Your task to perform on an android device: Clear the cart on newegg.com. Add "logitech g pro" to the cart on newegg.com Image 0: 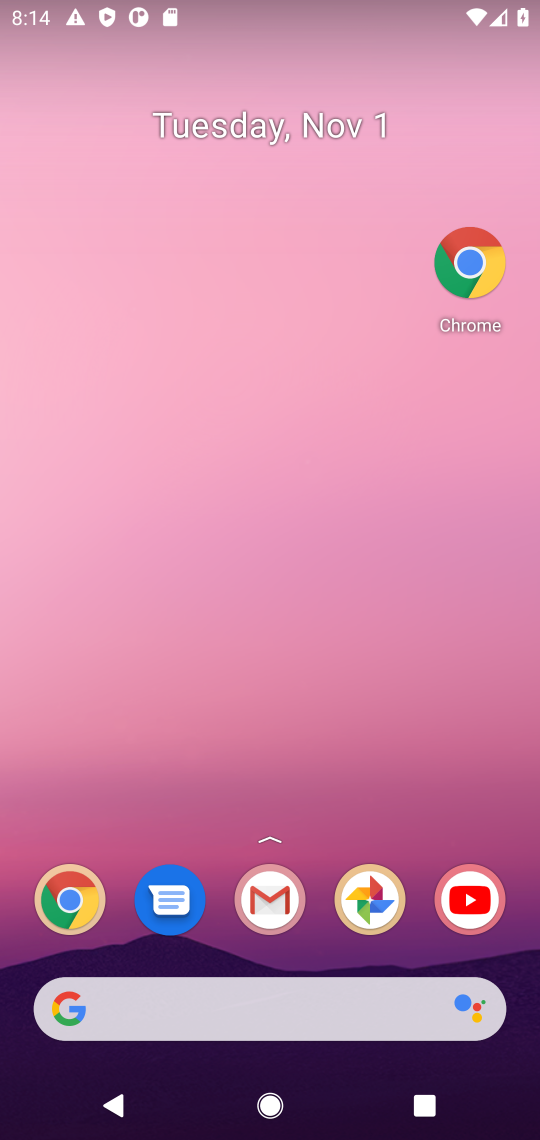
Step 0: drag from (253, 710) to (203, 117)
Your task to perform on an android device: Clear the cart on newegg.com. Add "logitech g pro" to the cart on newegg.com Image 1: 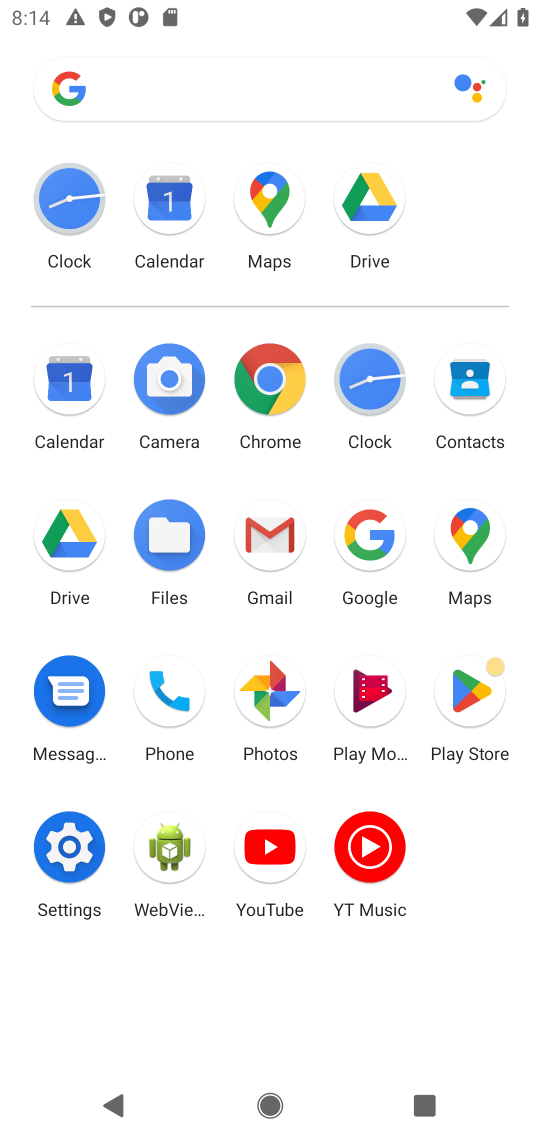
Step 1: click (262, 379)
Your task to perform on an android device: Clear the cart on newegg.com. Add "logitech g pro" to the cart on newegg.com Image 2: 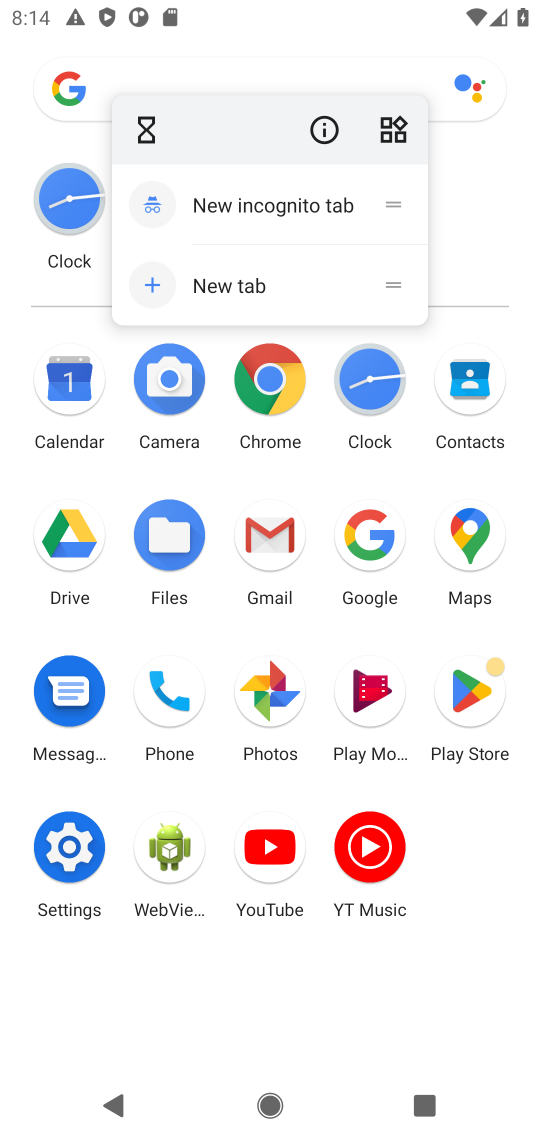
Step 2: click (251, 374)
Your task to perform on an android device: Clear the cart on newegg.com. Add "logitech g pro" to the cart on newegg.com Image 3: 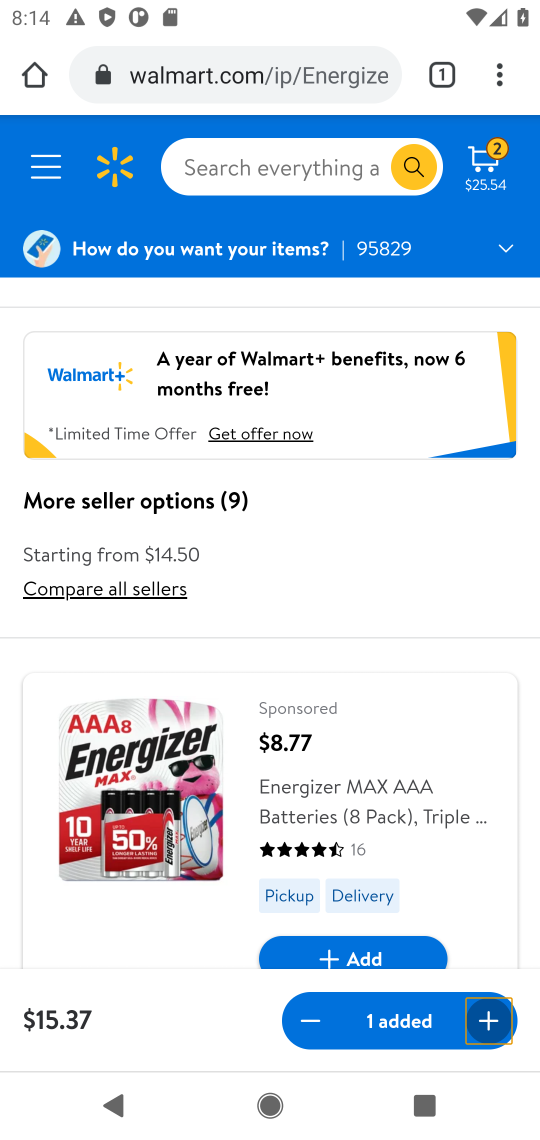
Step 3: click (216, 62)
Your task to perform on an android device: Clear the cart on newegg.com. Add "logitech g pro" to the cart on newegg.com Image 4: 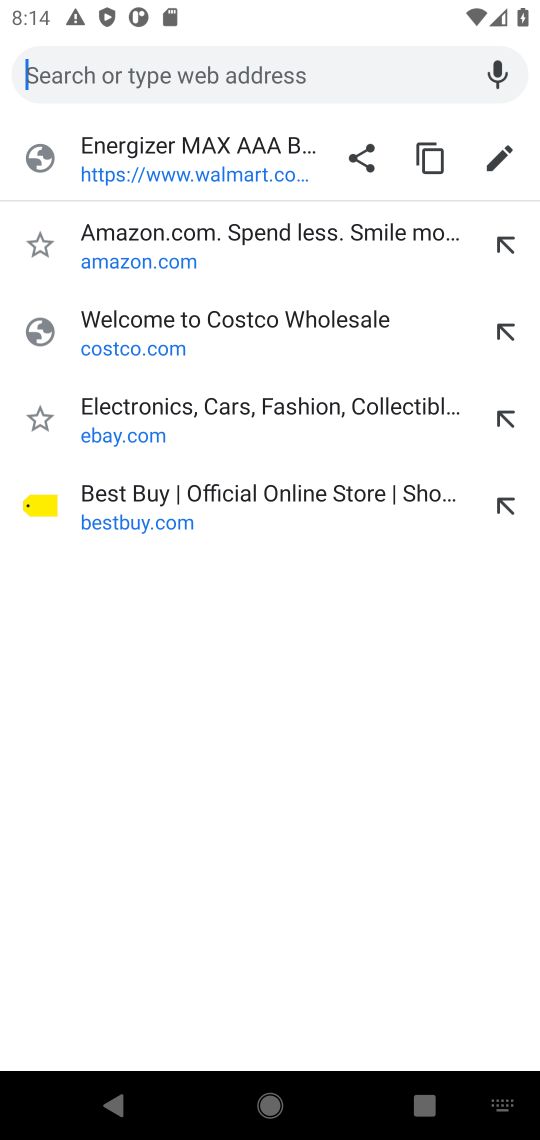
Step 4: type "newegg.com"
Your task to perform on an android device: Clear the cart on newegg.com. Add "logitech g pro" to the cart on newegg.com Image 5: 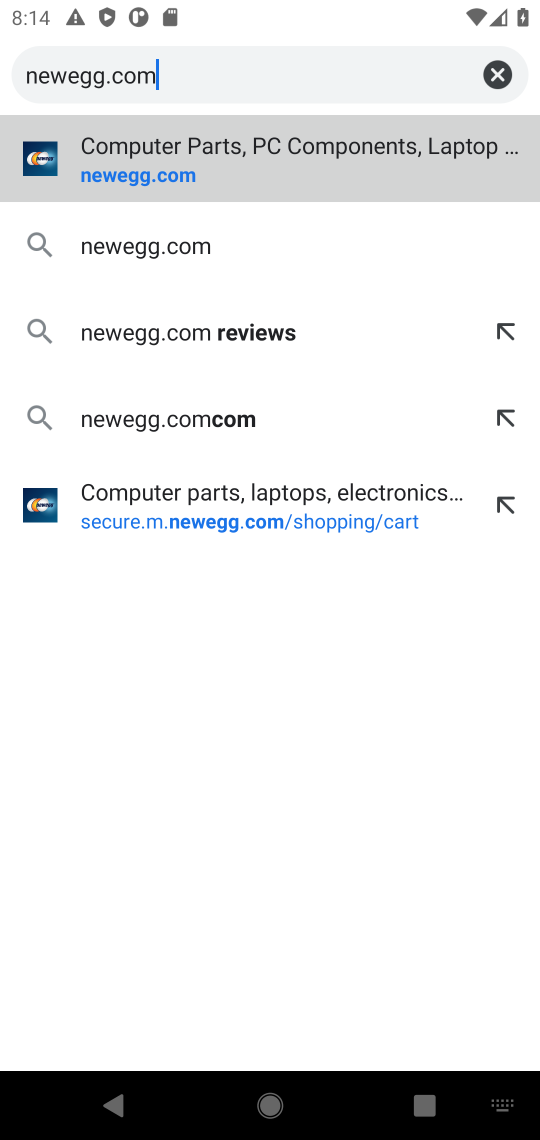
Step 5: click (230, 174)
Your task to perform on an android device: Clear the cart on newegg.com. Add "logitech g pro" to the cart on newegg.com Image 6: 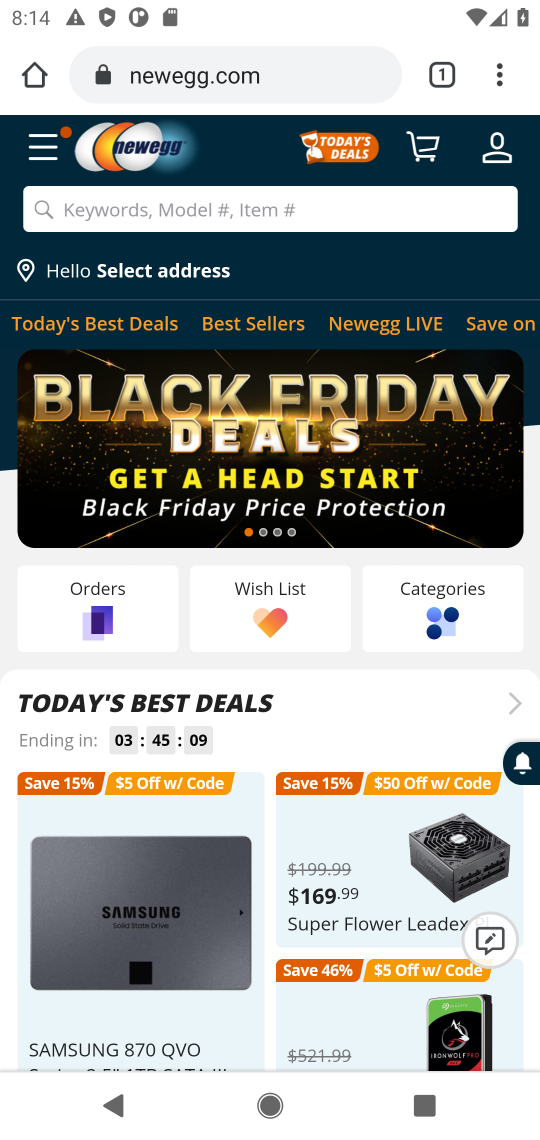
Step 6: click (427, 170)
Your task to perform on an android device: Clear the cart on newegg.com. Add "logitech g pro" to the cart on newegg.com Image 7: 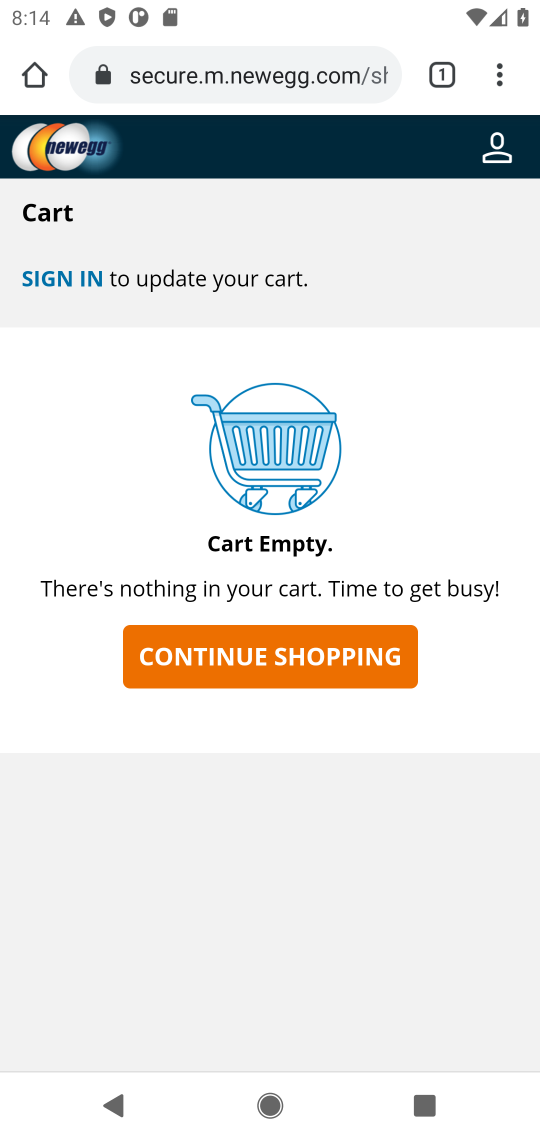
Step 7: click (361, 642)
Your task to perform on an android device: Clear the cart on newegg.com. Add "logitech g pro" to the cart on newegg.com Image 8: 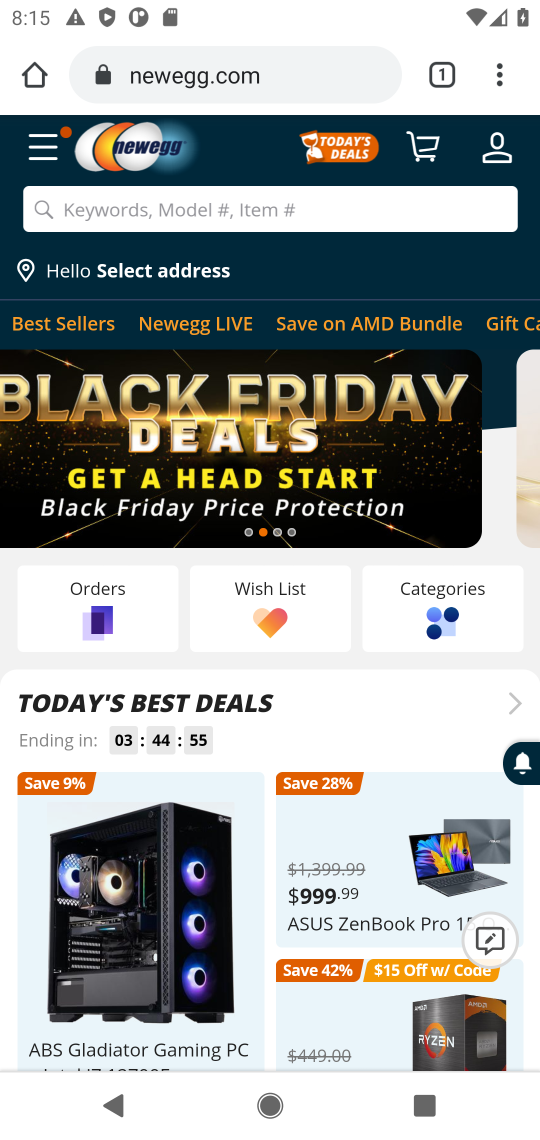
Step 8: click (380, 219)
Your task to perform on an android device: Clear the cart on newegg.com. Add "logitech g pro" to the cart on newegg.com Image 9: 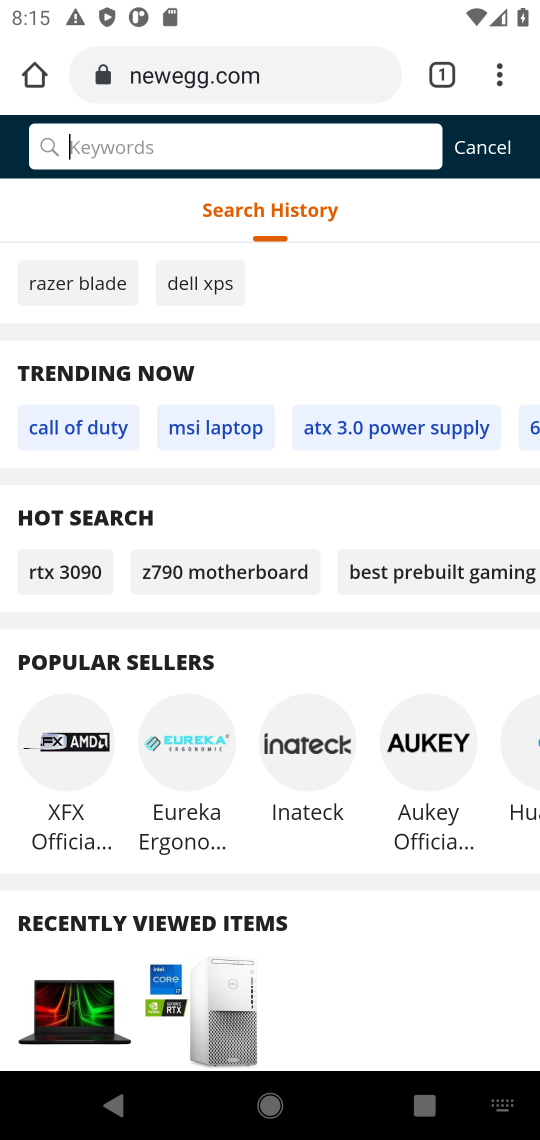
Step 9: type "logitech g pro"
Your task to perform on an android device: Clear the cart on newegg.com. Add "logitech g pro" to the cart on newegg.com Image 10: 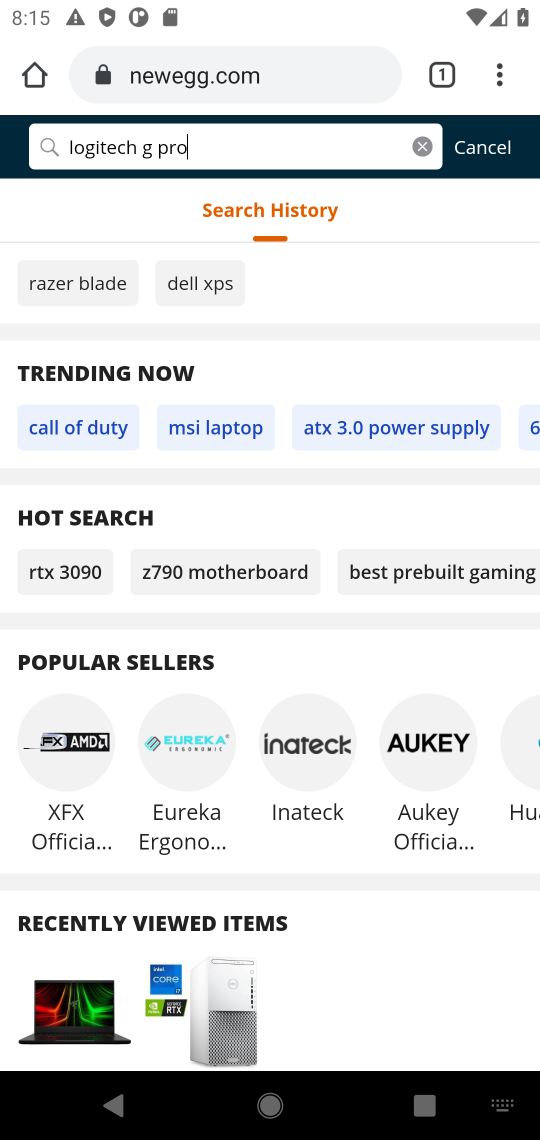
Step 10: press enter
Your task to perform on an android device: Clear the cart on newegg.com. Add "logitech g pro" to the cart on newegg.com Image 11: 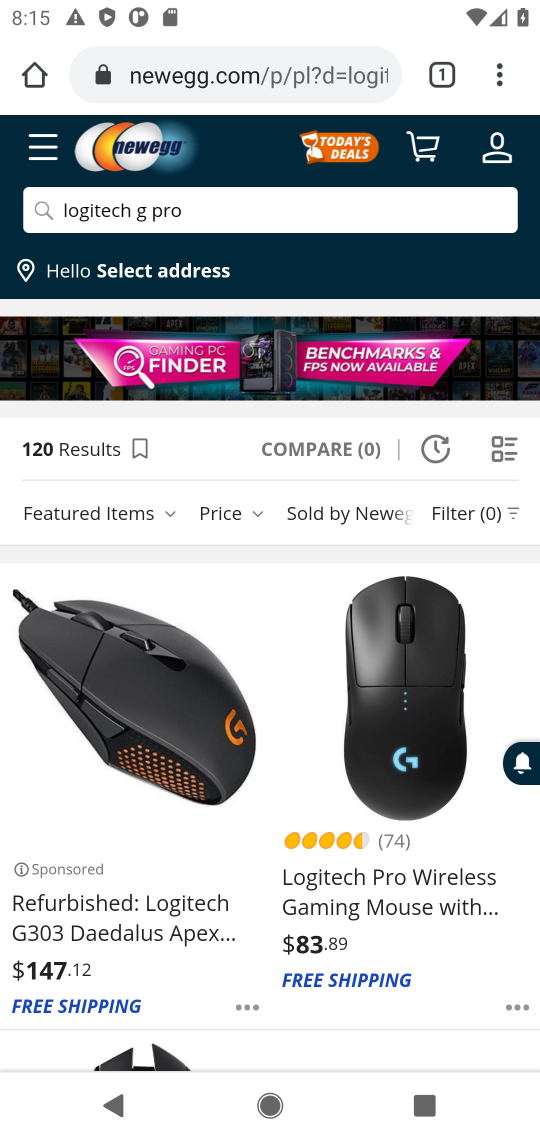
Step 11: click (379, 887)
Your task to perform on an android device: Clear the cart on newegg.com. Add "logitech g pro" to the cart on newegg.com Image 12: 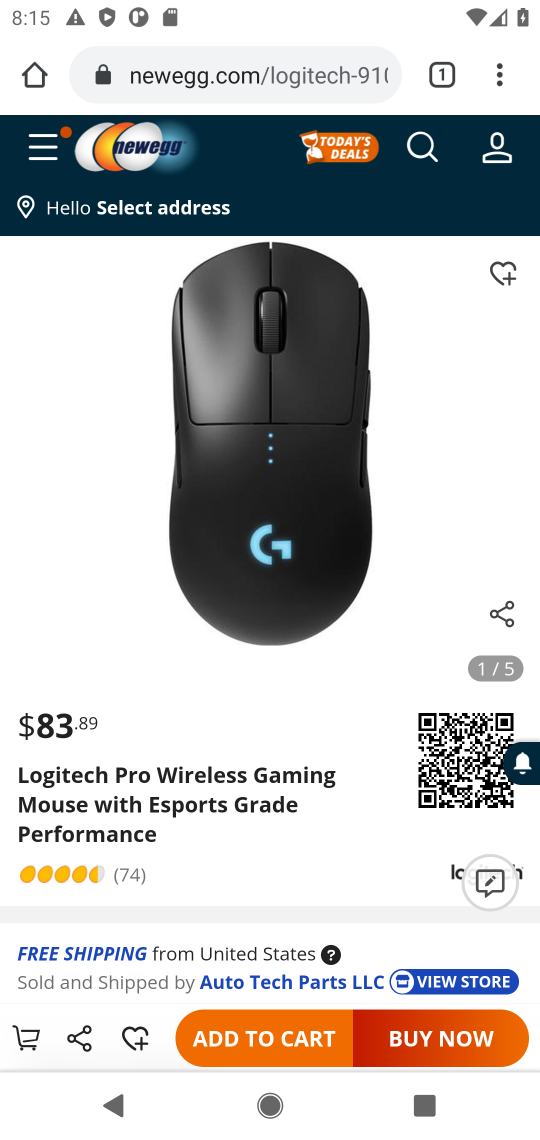
Step 12: click (268, 1038)
Your task to perform on an android device: Clear the cart on newegg.com. Add "logitech g pro" to the cart on newegg.com Image 13: 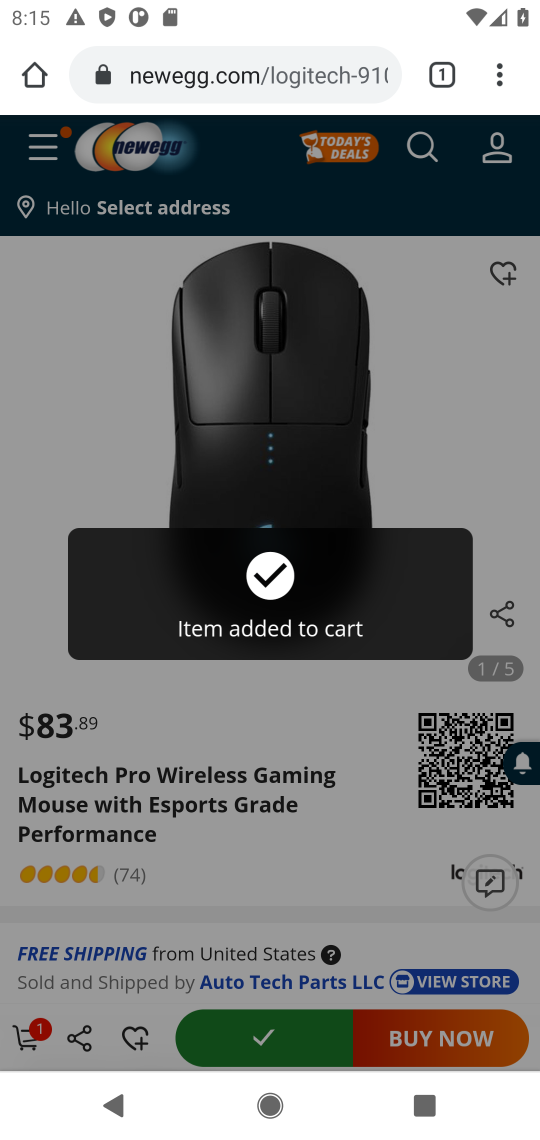
Step 13: task complete